Your task to perform on an android device: Check the news Image 0: 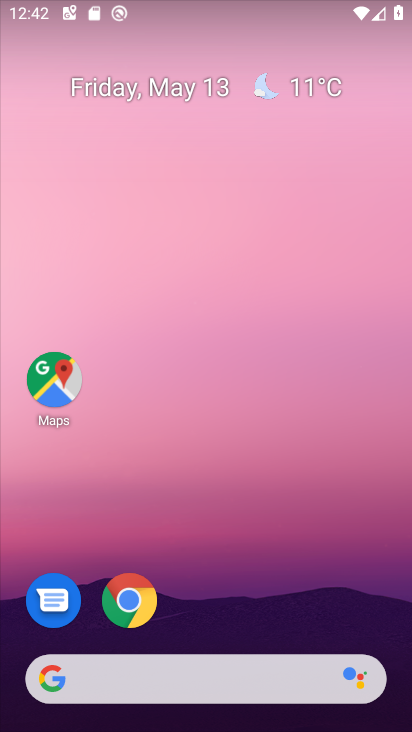
Step 0: click (179, 686)
Your task to perform on an android device: Check the news Image 1: 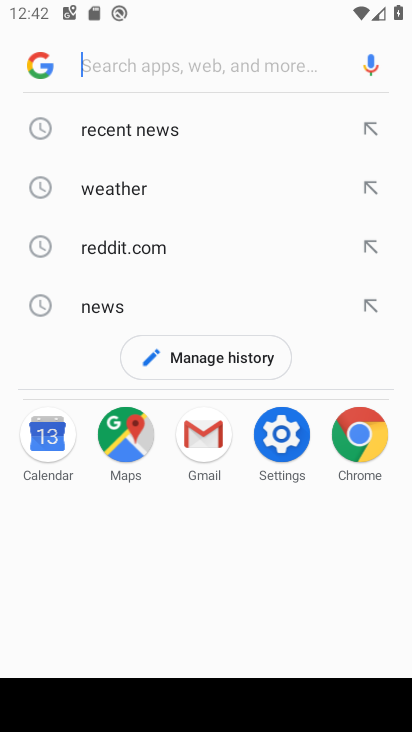
Step 1: click (112, 308)
Your task to perform on an android device: Check the news Image 2: 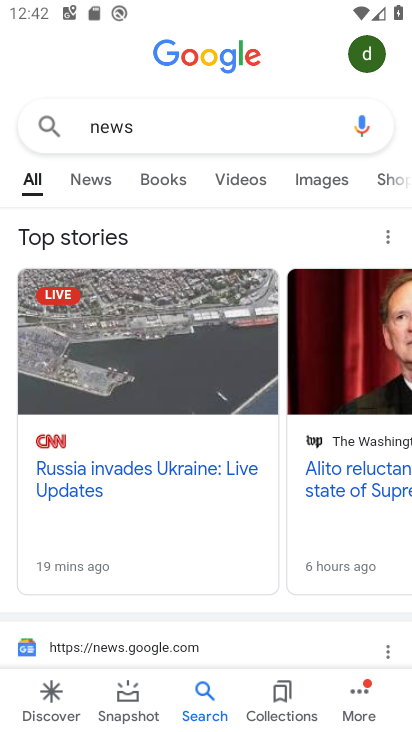
Step 2: task complete